Your task to perform on an android device: toggle data saver in the chrome app Image 0: 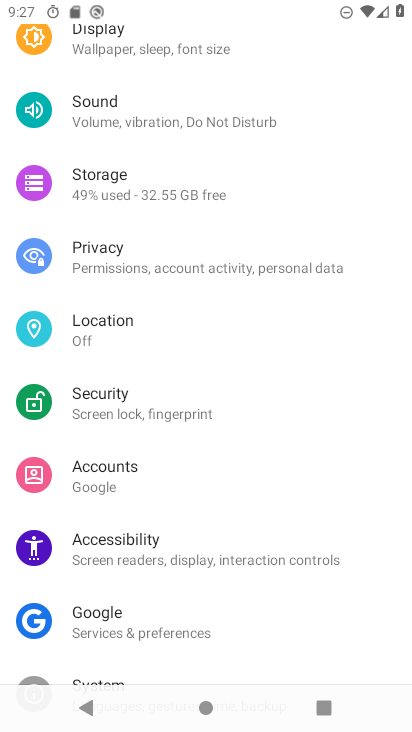
Step 0: drag from (219, 595) to (334, 159)
Your task to perform on an android device: toggle data saver in the chrome app Image 1: 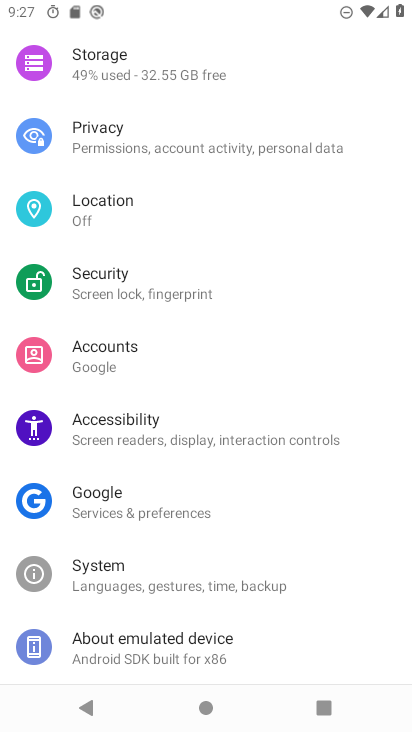
Step 1: drag from (207, 604) to (274, 301)
Your task to perform on an android device: toggle data saver in the chrome app Image 2: 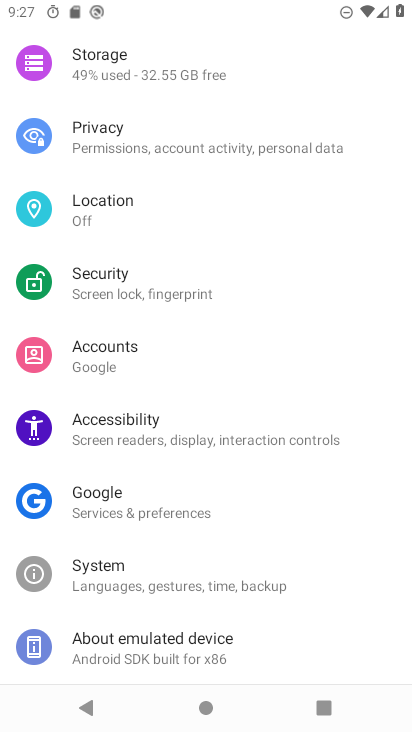
Step 2: press home button
Your task to perform on an android device: toggle data saver in the chrome app Image 3: 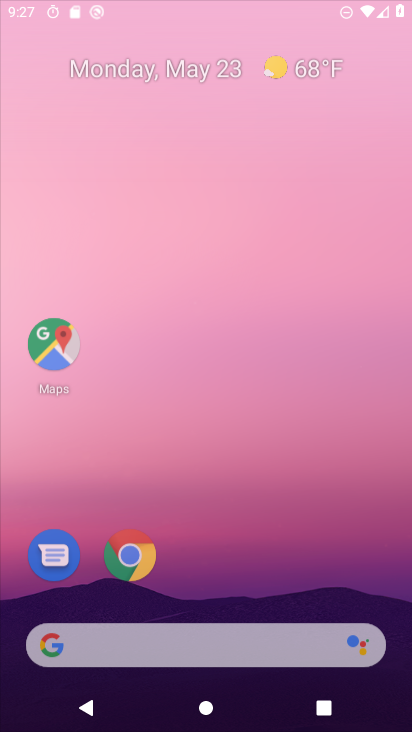
Step 3: drag from (164, 647) to (282, 12)
Your task to perform on an android device: toggle data saver in the chrome app Image 4: 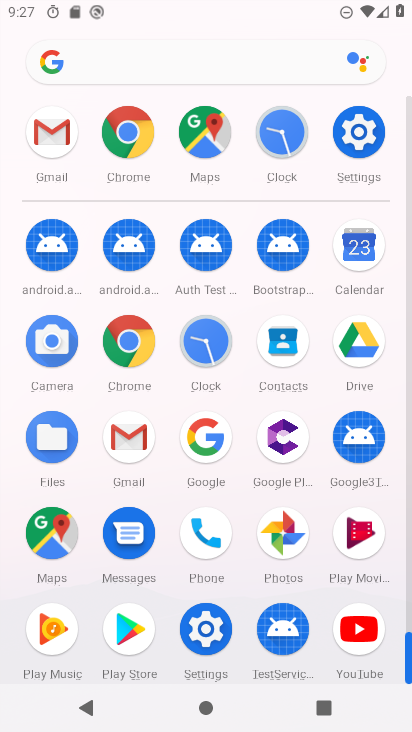
Step 4: click (125, 335)
Your task to perform on an android device: toggle data saver in the chrome app Image 5: 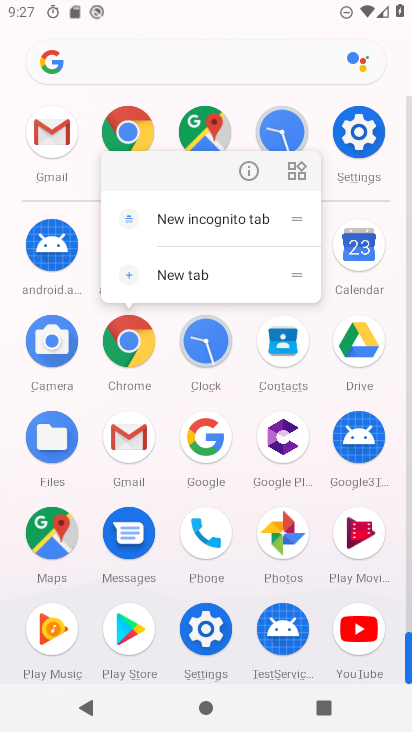
Step 5: click (253, 166)
Your task to perform on an android device: toggle data saver in the chrome app Image 6: 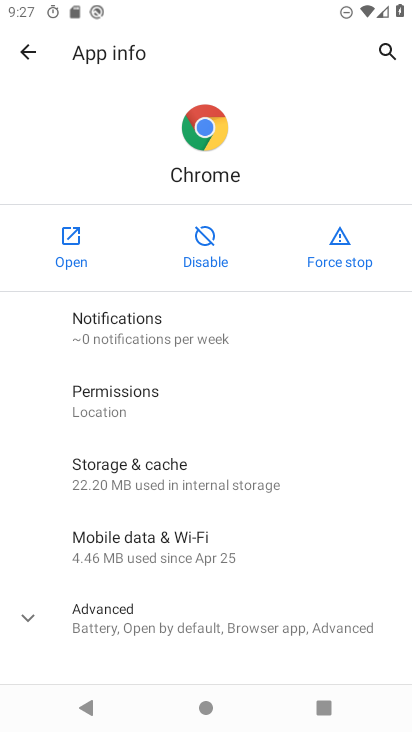
Step 6: click (52, 252)
Your task to perform on an android device: toggle data saver in the chrome app Image 7: 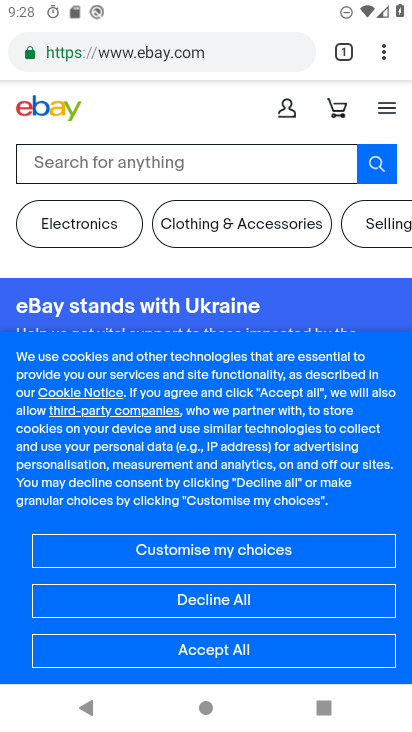
Step 7: click (372, 48)
Your task to perform on an android device: toggle data saver in the chrome app Image 8: 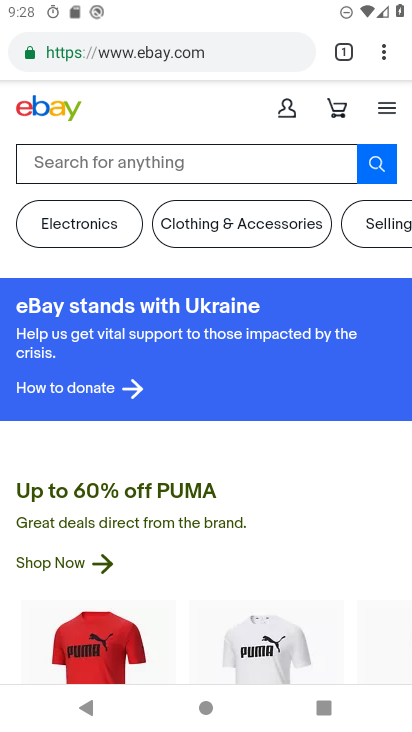
Step 8: click (384, 45)
Your task to perform on an android device: toggle data saver in the chrome app Image 9: 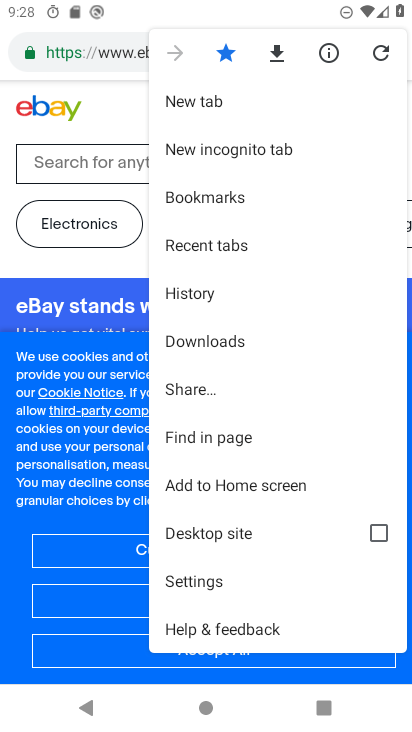
Step 9: click (220, 583)
Your task to perform on an android device: toggle data saver in the chrome app Image 10: 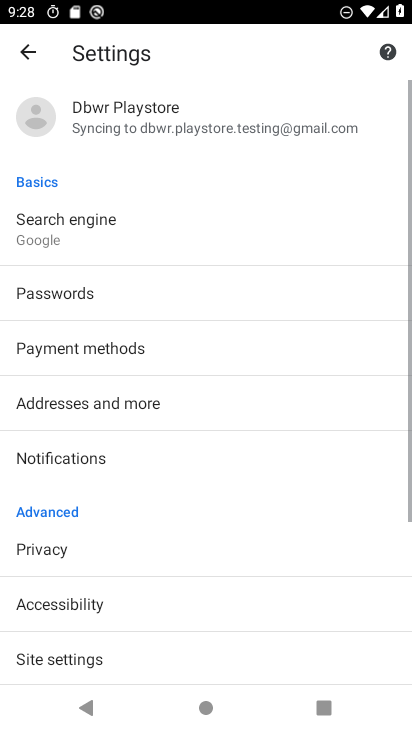
Step 10: drag from (149, 548) to (192, 187)
Your task to perform on an android device: toggle data saver in the chrome app Image 11: 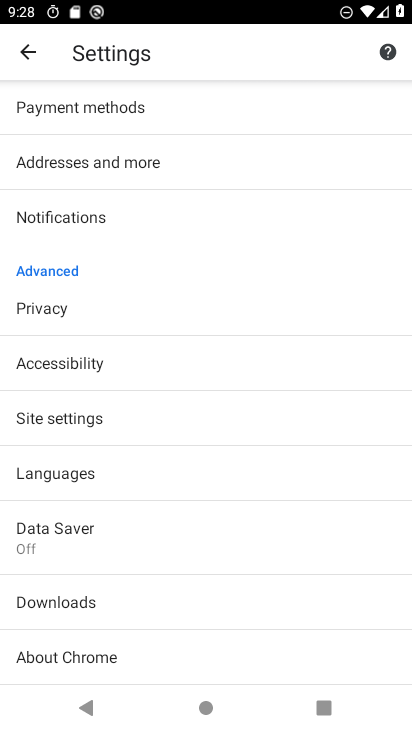
Step 11: click (48, 526)
Your task to perform on an android device: toggle data saver in the chrome app Image 12: 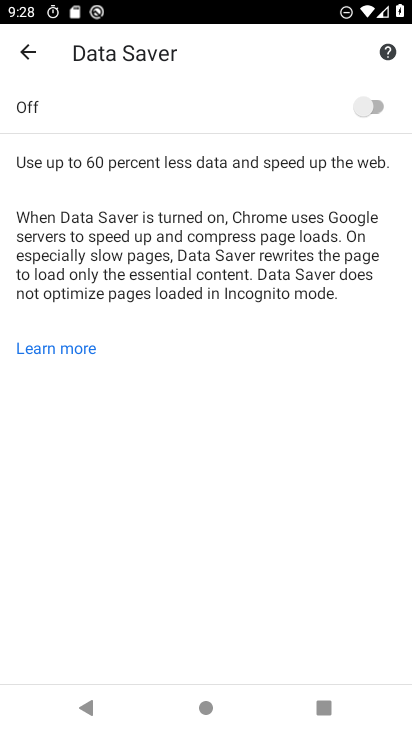
Step 12: click (322, 125)
Your task to perform on an android device: toggle data saver in the chrome app Image 13: 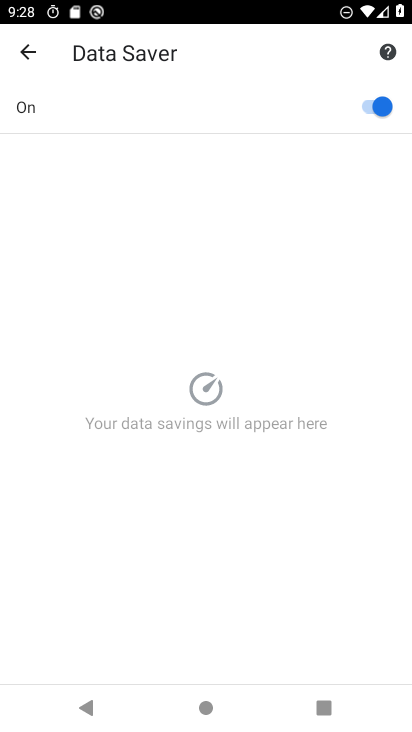
Step 13: task complete